Your task to perform on an android device: Show me popular games on the Play Store Image 0: 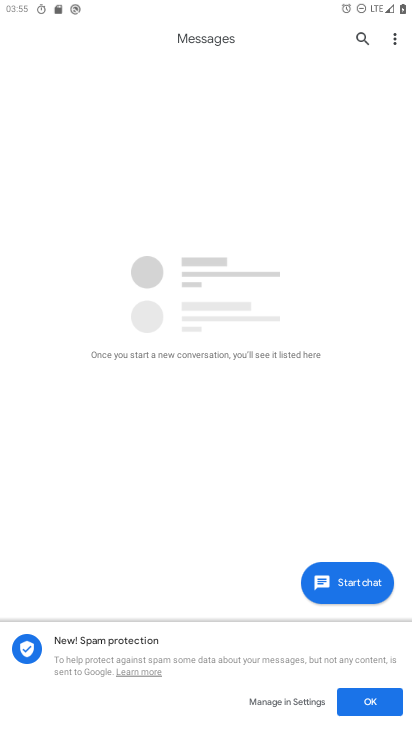
Step 0: press home button
Your task to perform on an android device: Show me popular games on the Play Store Image 1: 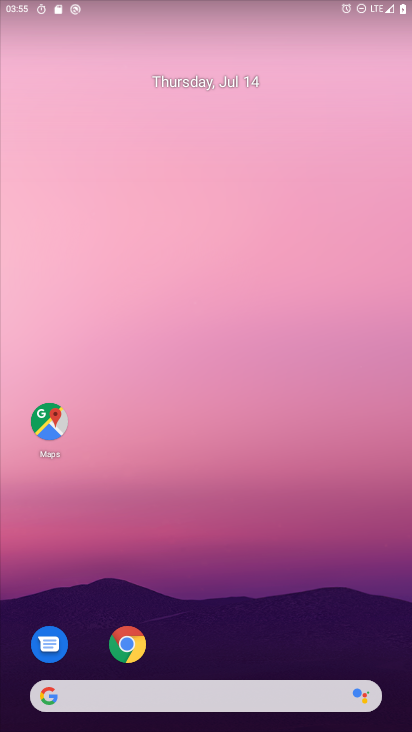
Step 1: drag from (300, 583) to (277, 16)
Your task to perform on an android device: Show me popular games on the Play Store Image 2: 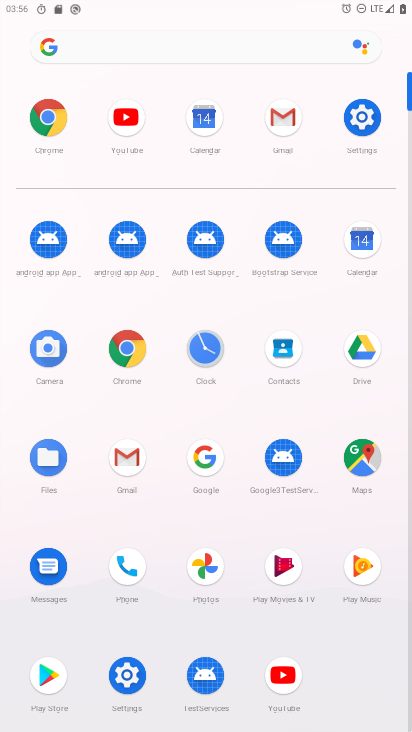
Step 2: click (53, 679)
Your task to perform on an android device: Show me popular games on the Play Store Image 3: 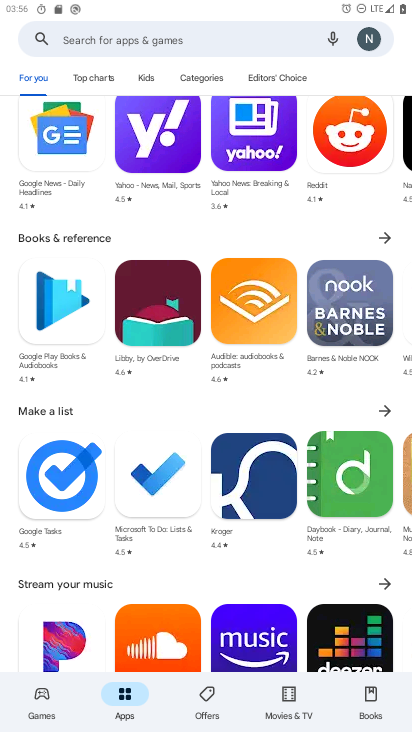
Step 3: click (44, 697)
Your task to perform on an android device: Show me popular games on the Play Store Image 4: 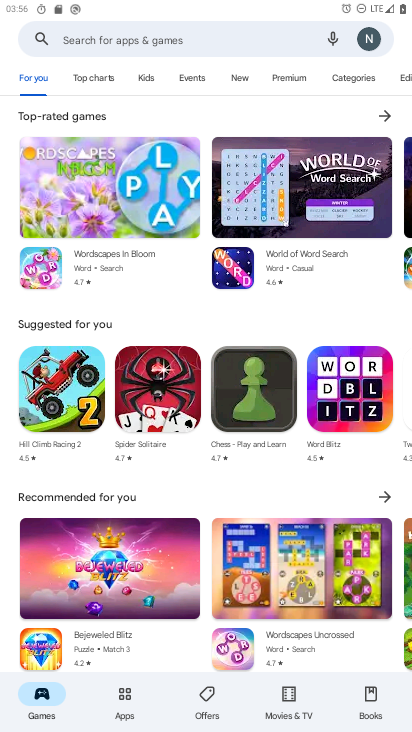
Step 4: task complete